Your task to perform on an android device: What's on my calendar tomorrow? Image 0: 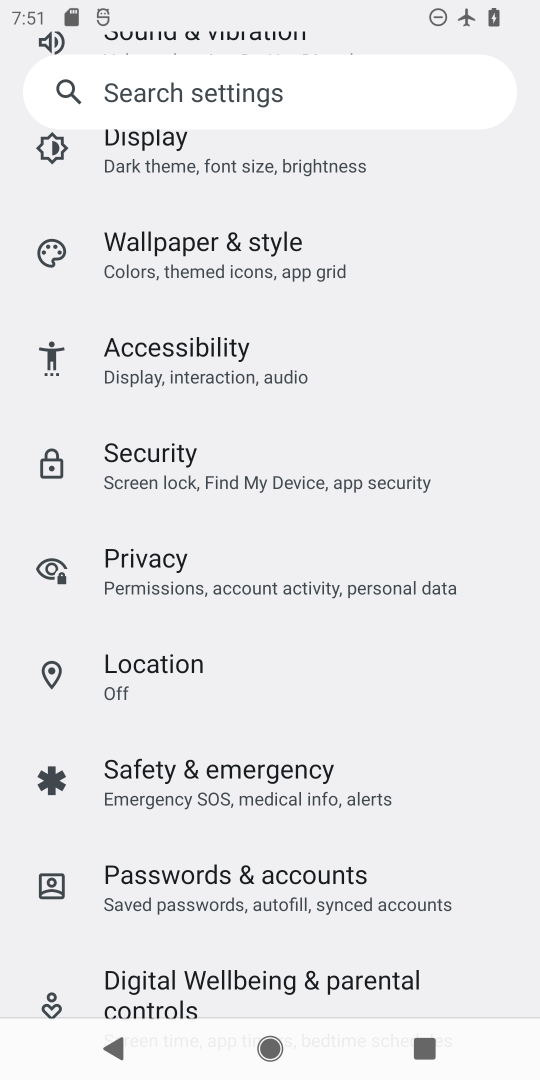
Step 0: press home button
Your task to perform on an android device: What's on my calendar tomorrow? Image 1: 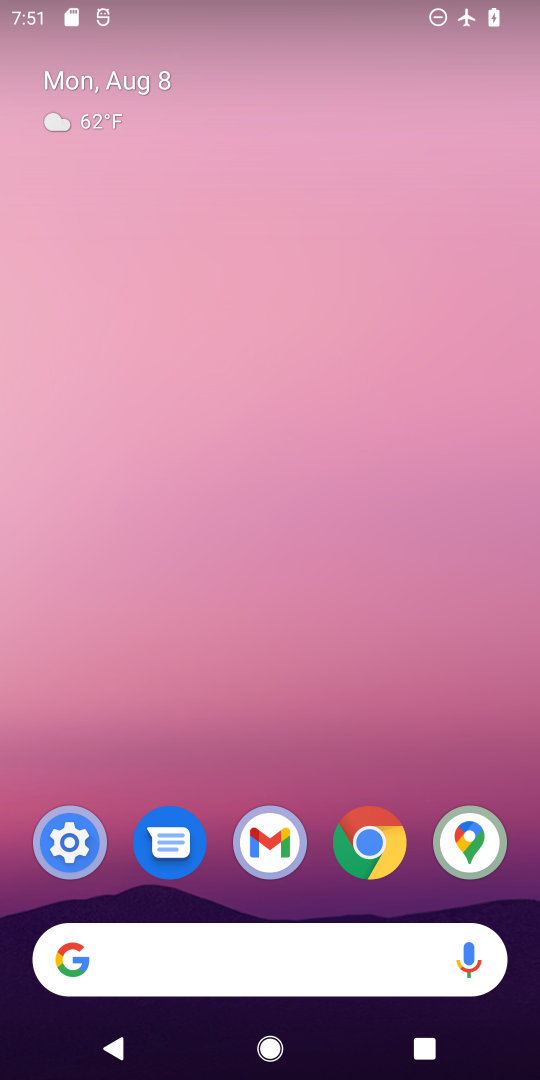
Step 1: drag from (326, 875) to (464, 96)
Your task to perform on an android device: What's on my calendar tomorrow? Image 2: 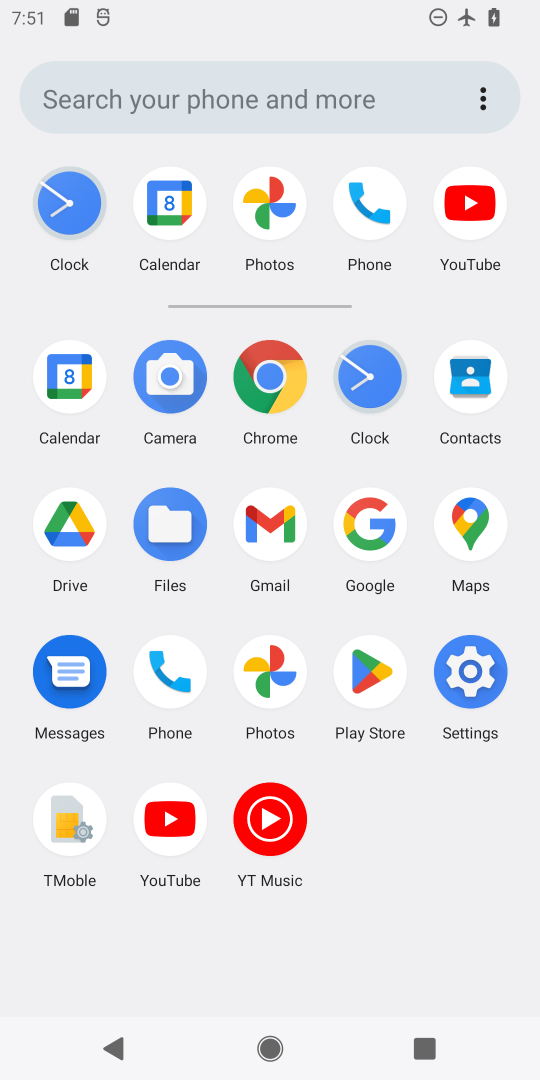
Step 2: click (38, 405)
Your task to perform on an android device: What's on my calendar tomorrow? Image 3: 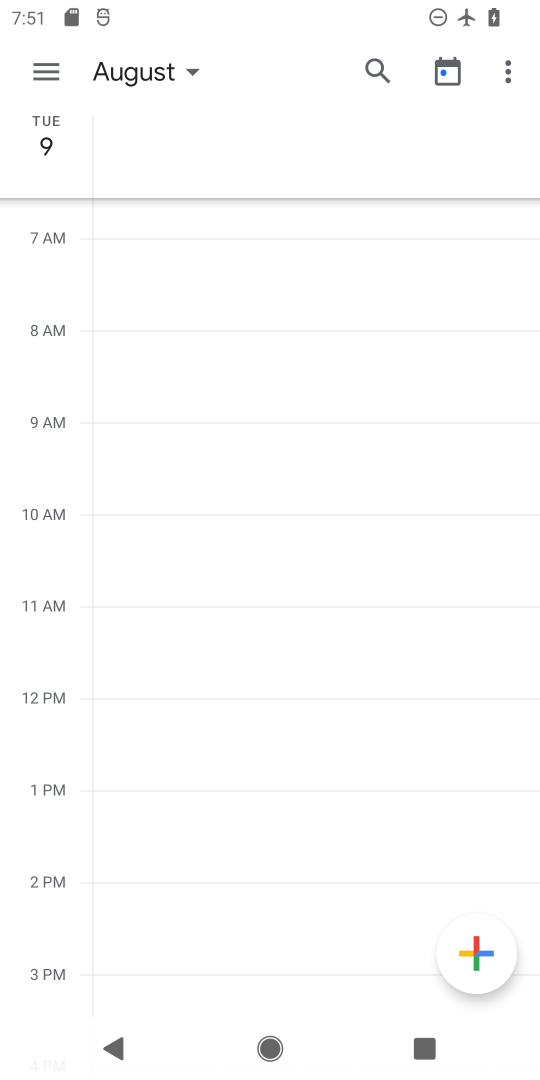
Step 3: click (49, 141)
Your task to perform on an android device: What's on my calendar tomorrow? Image 4: 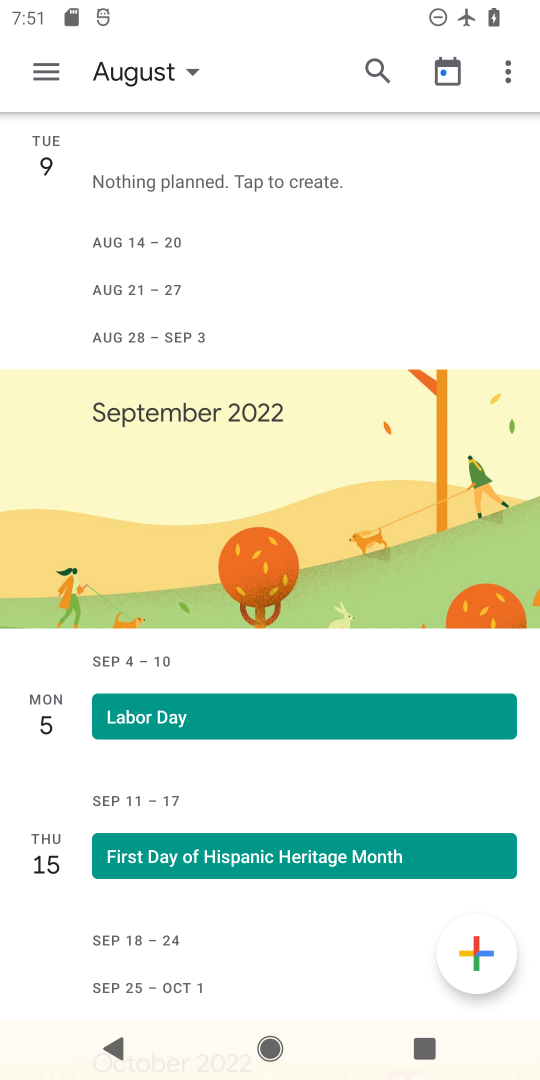
Step 4: task complete